Your task to perform on an android device: change the upload size in google photos Image 0: 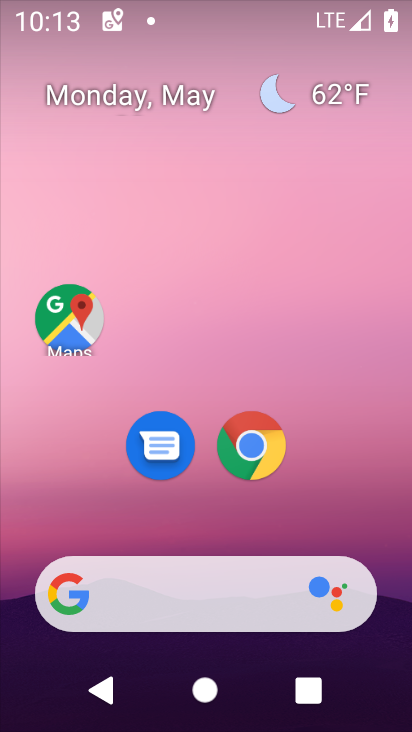
Step 0: drag from (396, 609) to (256, 65)
Your task to perform on an android device: change the upload size in google photos Image 1: 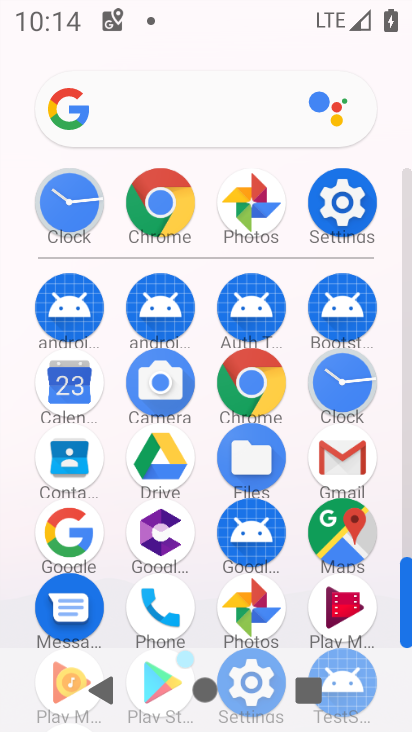
Step 1: click (268, 591)
Your task to perform on an android device: change the upload size in google photos Image 2: 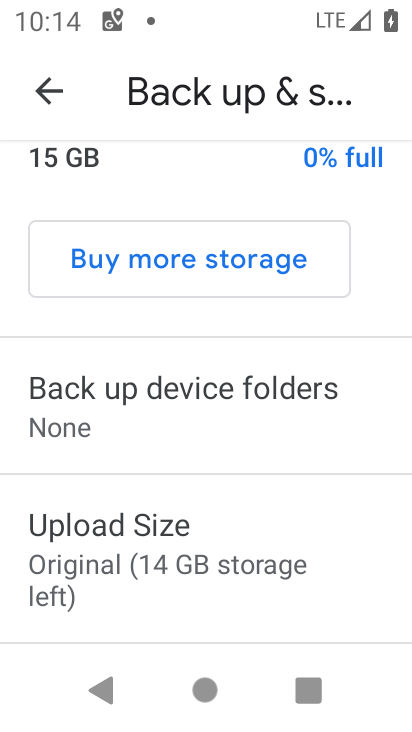
Step 2: click (171, 579)
Your task to perform on an android device: change the upload size in google photos Image 3: 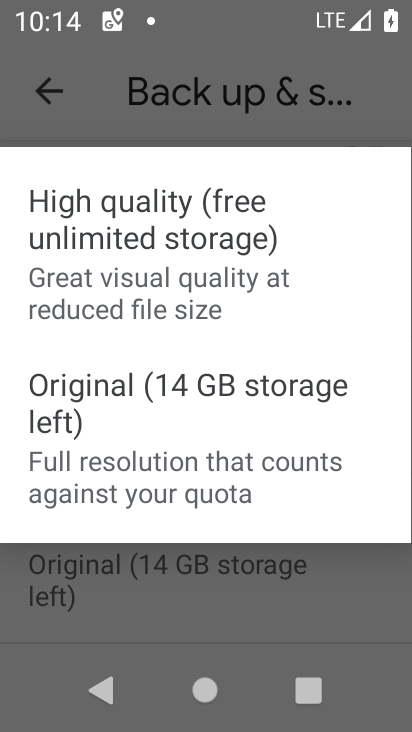
Step 3: click (122, 296)
Your task to perform on an android device: change the upload size in google photos Image 4: 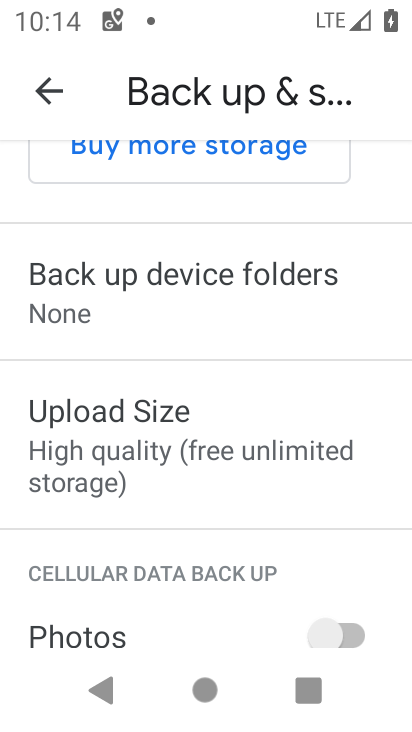
Step 4: task complete